Your task to perform on an android device: move a message to another label in the gmail app Image 0: 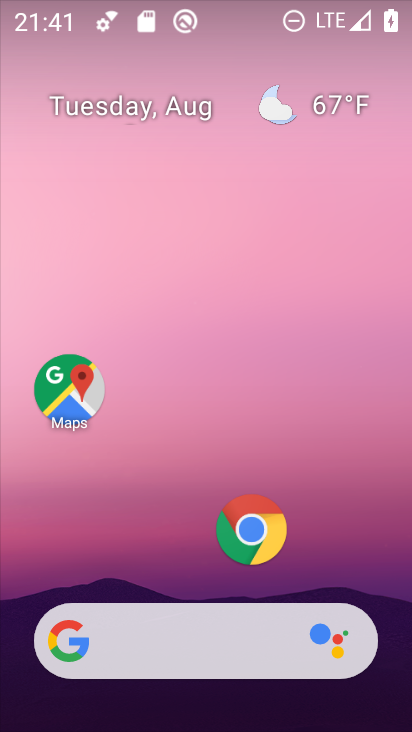
Step 0: click (241, 105)
Your task to perform on an android device: move a message to another label in the gmail app Image 1: 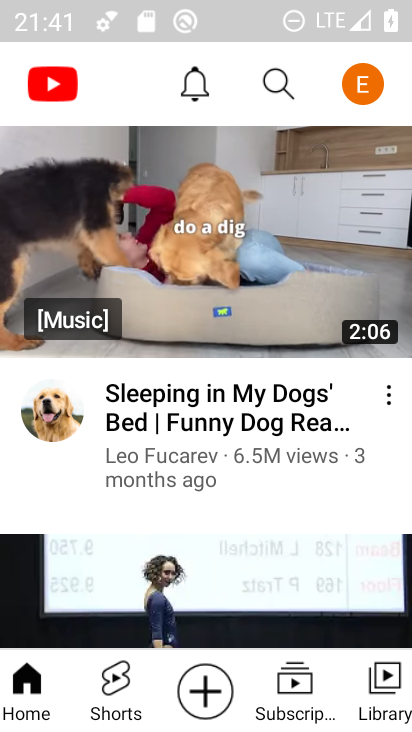
Step 1: drag from (203, 410) to (211, 217)
Your task to perform on an android device: move a message to another label in the gmail app Image 2: 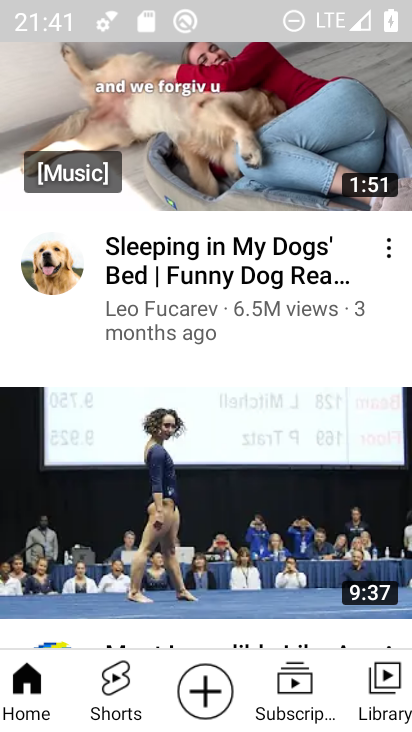
Step 2: press home button
Your task to perform on an android device: move a message to another label in the gmail app Image 3: 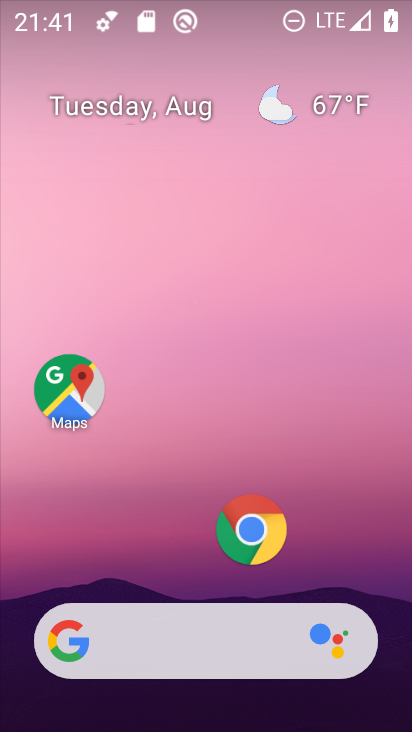
Step 3: drag from (158, 567) to (149, 188)
Your task to perform on an android device: move a message to another label in the gmail app Image 4: 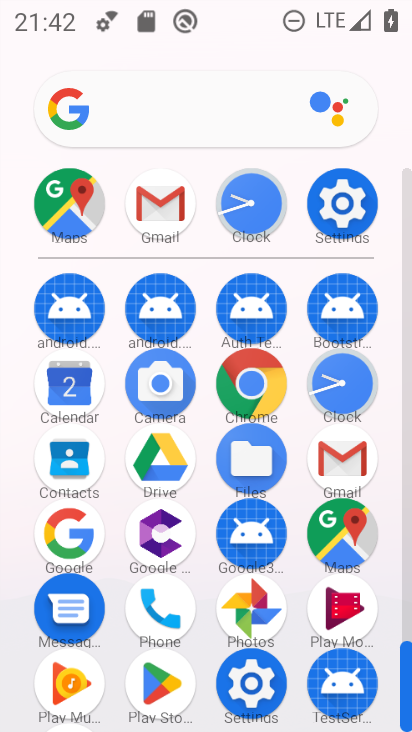
Step 4: click (356, 454)
Your task to perform on an android device: move a message to another label in the gmail app Image 5: 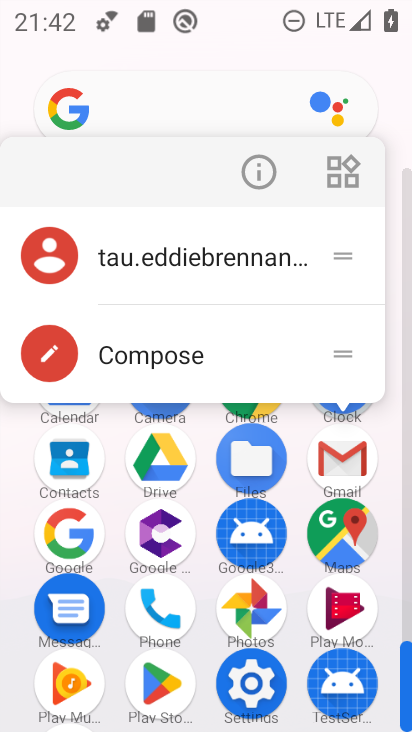
Step 5: click (254, 165)
Your task to perform on an android device: move a message to another label in the gmail app Image 6: 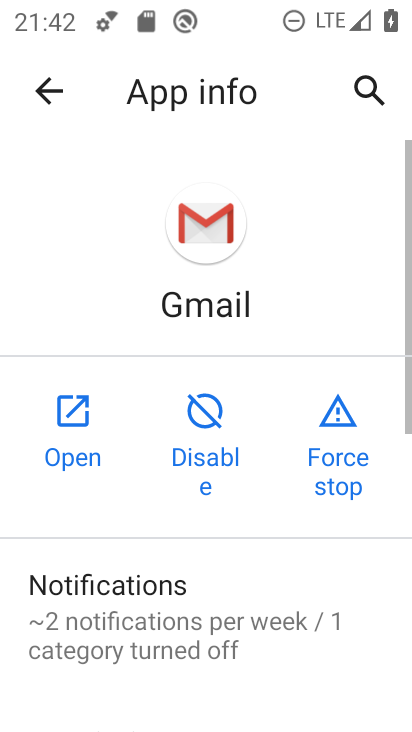
Step 6: click (81, 403)
Your task to perform on an android device: move a message to another label in the gmail app Image 7: 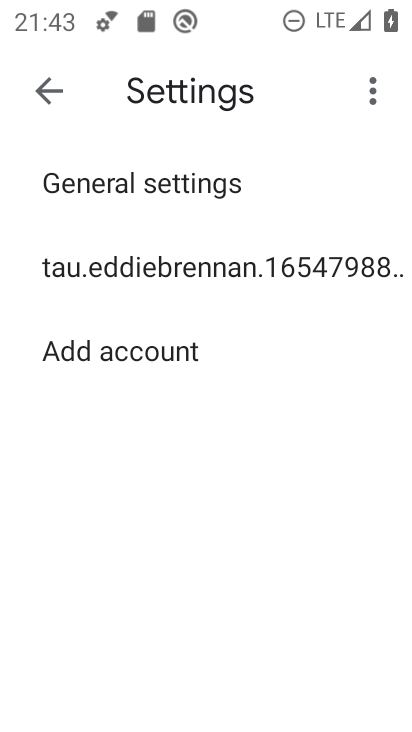
Step 7: click (46, 88)
Your task to perform on an android device: move a message to another label in the gmail app Image 8: 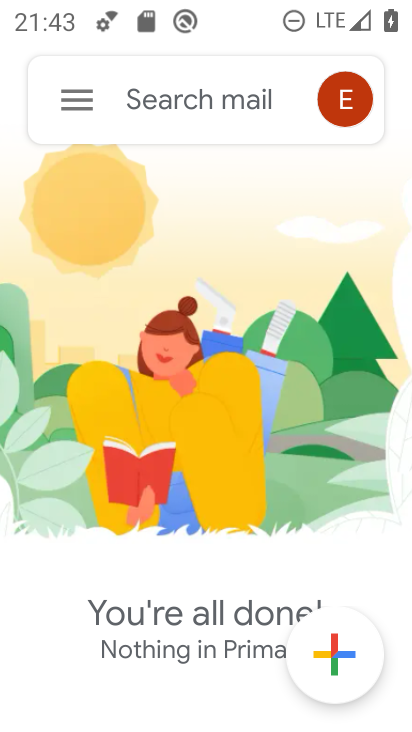
Step 8: click (75, 97)
Your task to perform on an android device: move a message to another label in the gmail app Image 9: 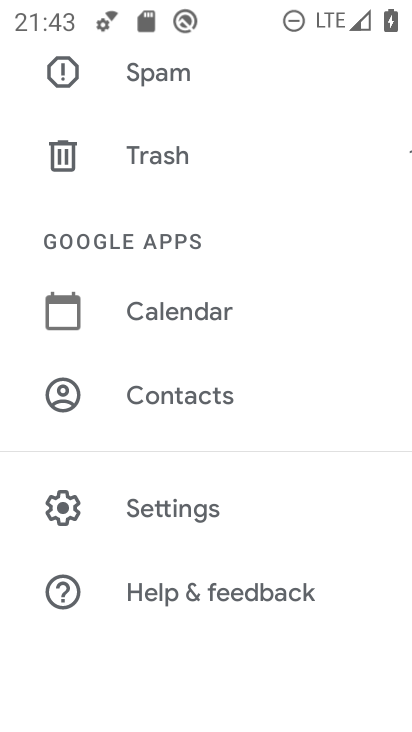
Step 9: drag from (97, 146) to (158, 600)
Your task to perform on an android device: move a message to another label in the gmail app Image 10: 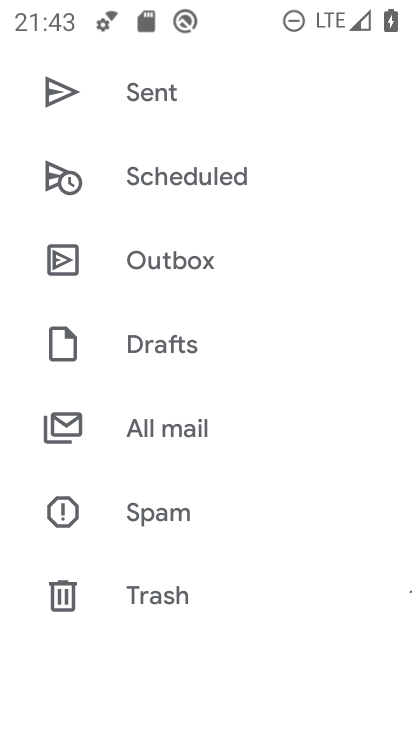
Step 10: drag from (224, 146) to (186, 567)
Your task to perform on an android device: move a message to another label in the gmail app Image 11: 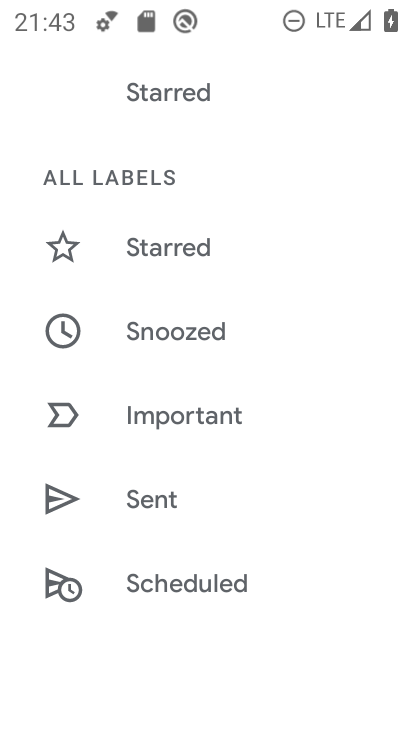
Step 11: drag from (232, 188) to (229, 600)
Your task to perform on an android device: move a message to another label in the gmail app Image 12: 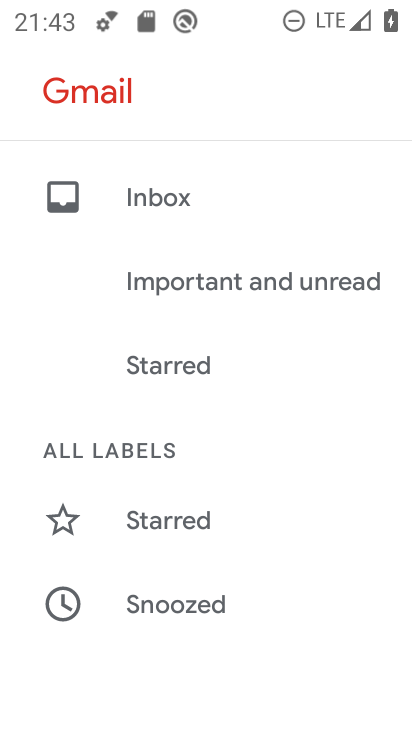
Step 12: click (172, 175)
Your task to perform on an android device: move a message to another label in the gmail app Image 13: 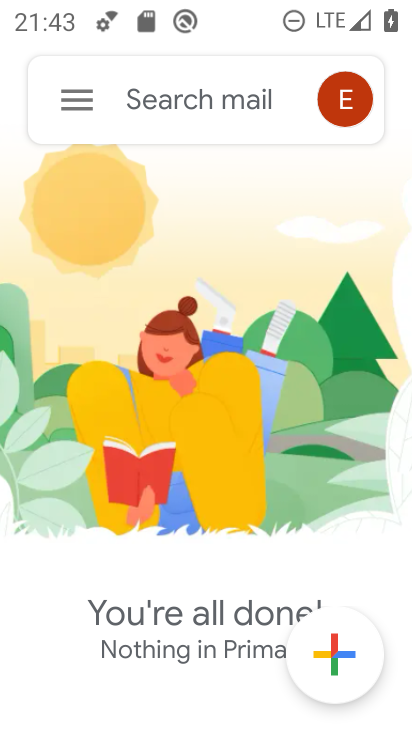
Step 13: task complete